Your task to perform on an android device: manage bookmarks in the chrome app Image 0: 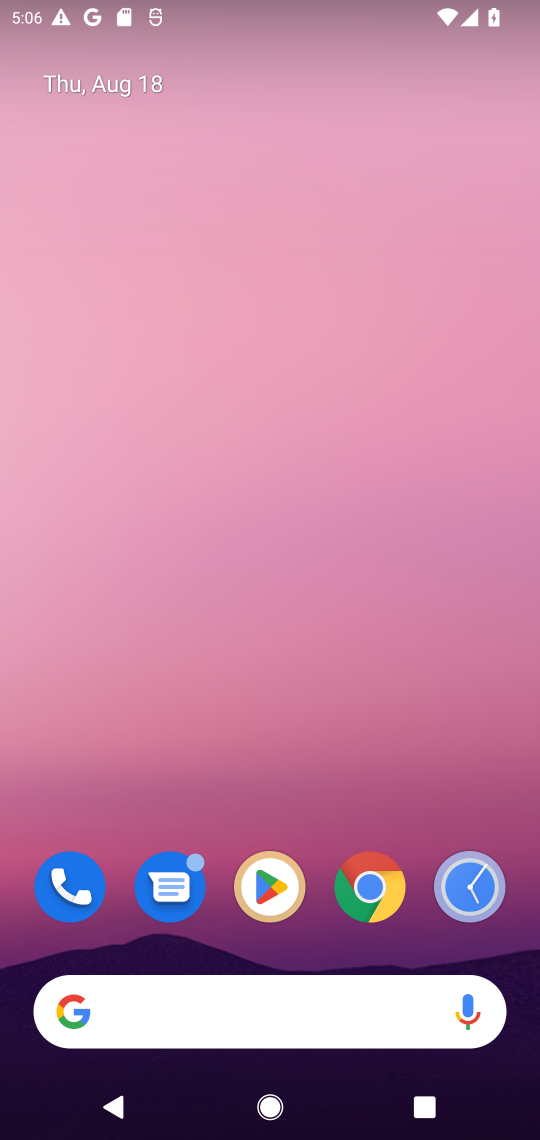
Step 0: click (280, 1014)
Your task to perform on an android device: manage bookmarks in the chrome app Image 1: 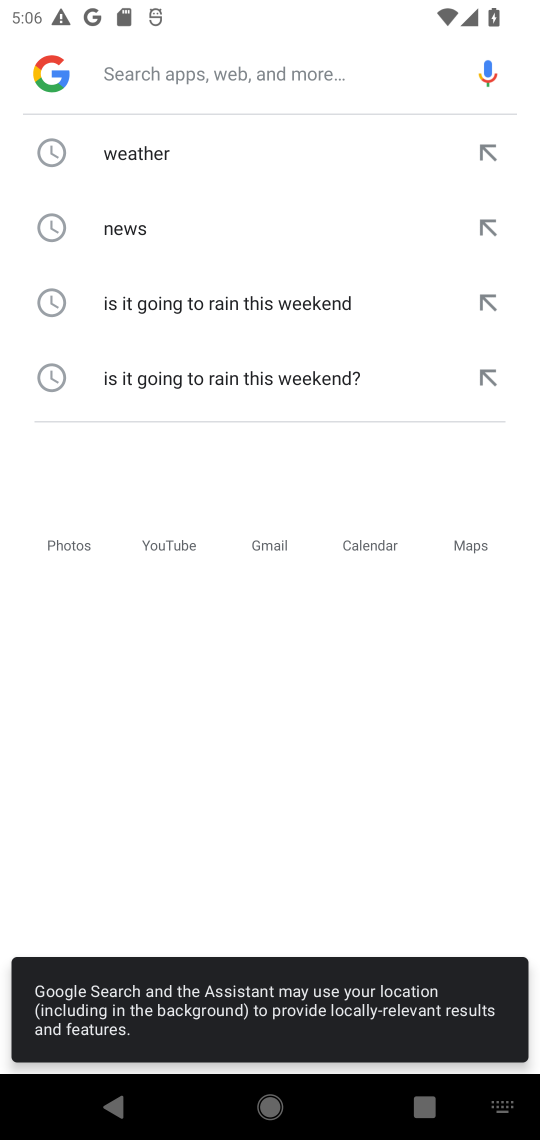
Step 1: task complete